Your task to perform on an android device: open sync settings in chrome Image 0: 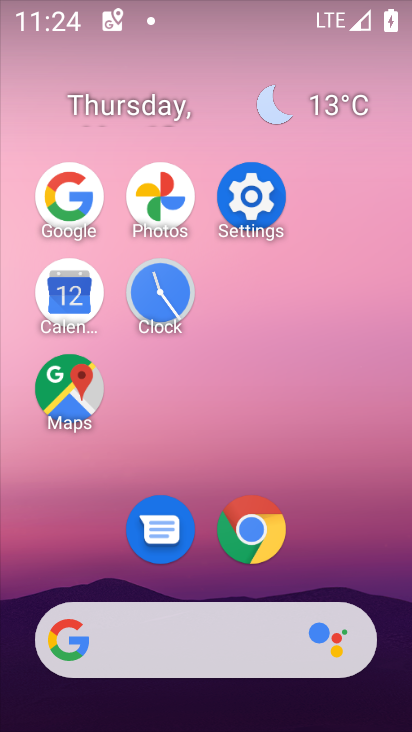
Step 0: click (240, 540)
Your task to perform on an android device: open sync settings in chrome Image 1: 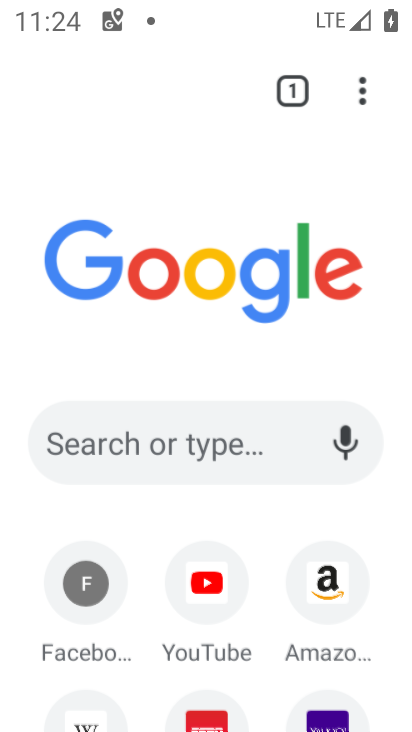
Step 1: click (369, 91)
Your task to perform on an android device: open sync settings in chrome Image 2: 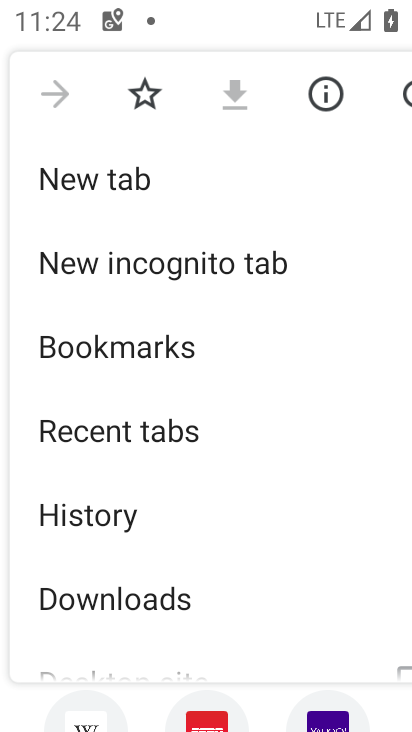
Step 2: drag from (234, 589) to (292, 159)
Your task to perform on an android device: open sync settings in chrome Image 3: 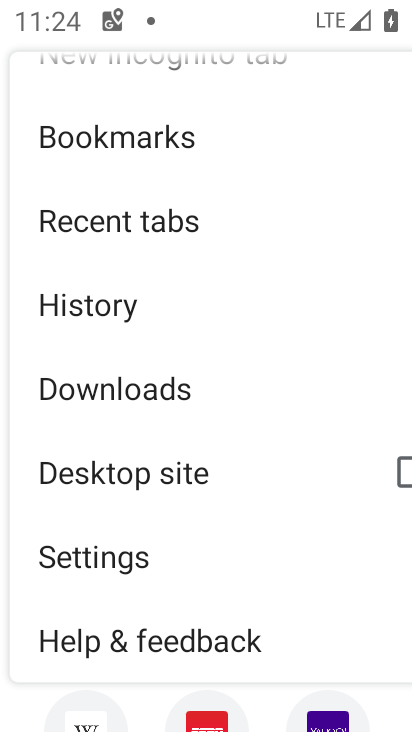
Step 3: click (210, 543)
Your task to perform on an android device: open sync settings in chrome Image 4: 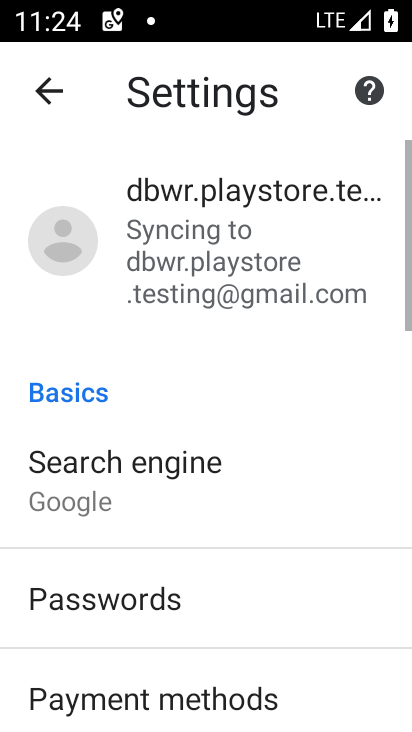
Step 4: drag from (210, 543) to (206, 151)
Your task to perform on an android device: open sync settings in chrome Image 5: 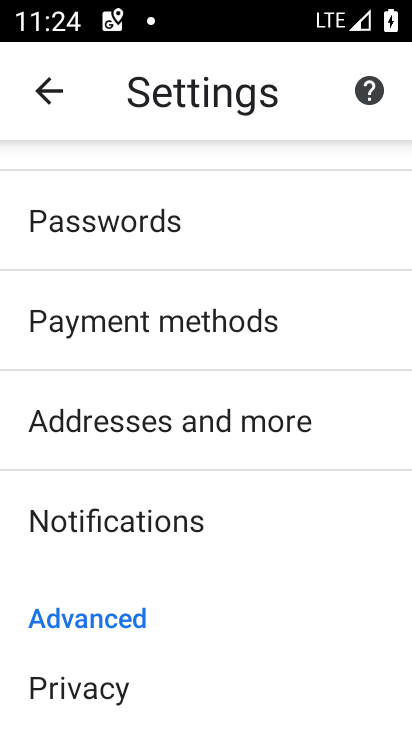
Step 5: drag from (208, 597) to (255, 220)
Your task to perform on an android device: open sync settings in chrome Image 6: 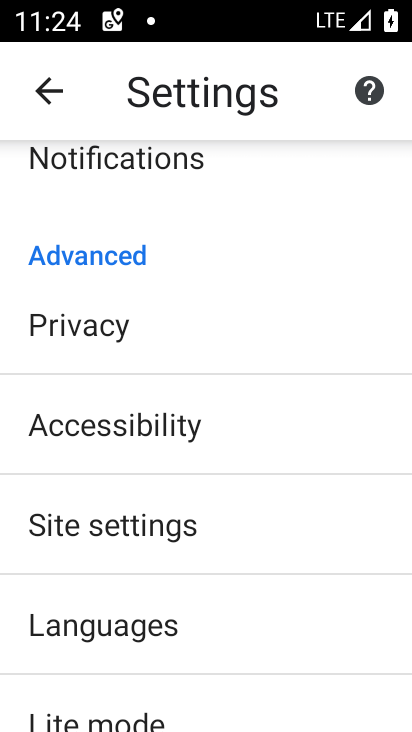
Step 6: click (226, 541)
Your task to perform on an android device: open sync settings in chrome Image 7: 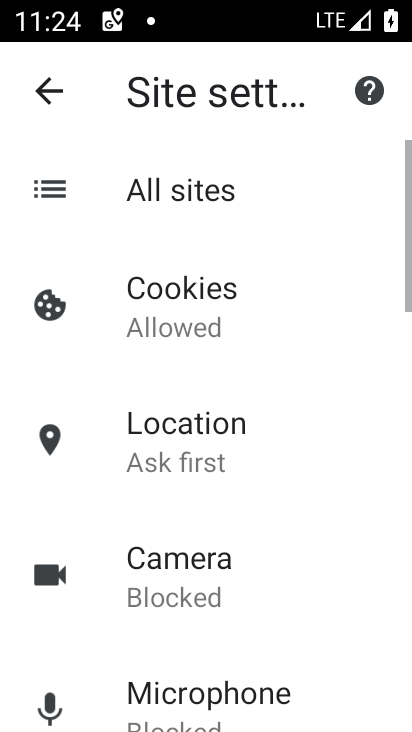
Step 7: drag from (226, 541) to (289, 139)
Your task to perform on an android device: open sync settings in chrome Image 8: 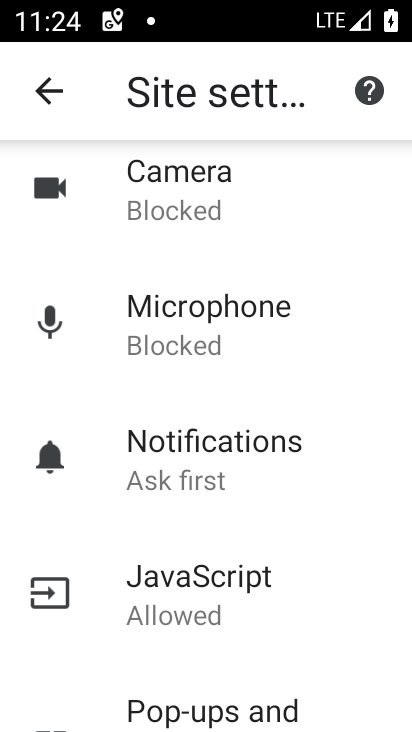
Step 8: drag from (254, 596) to (263, 237)
Your task to perform on an android device: open sync settings in chrome Image 9: 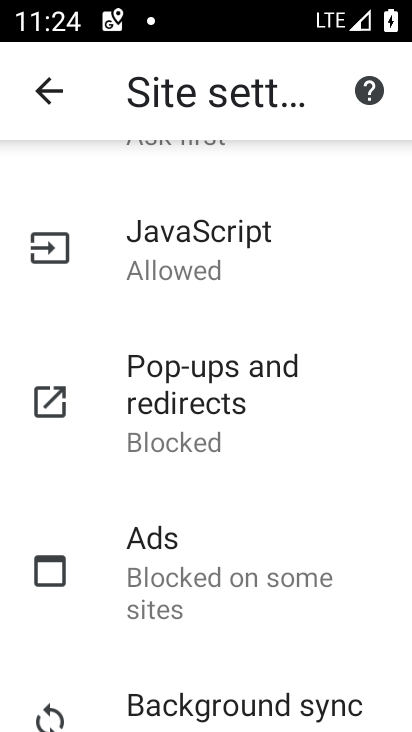
Step 9: drag from (230, 615) to (234, 252)
Your task to perform on an android device: open sync settings in chrome Image 10: 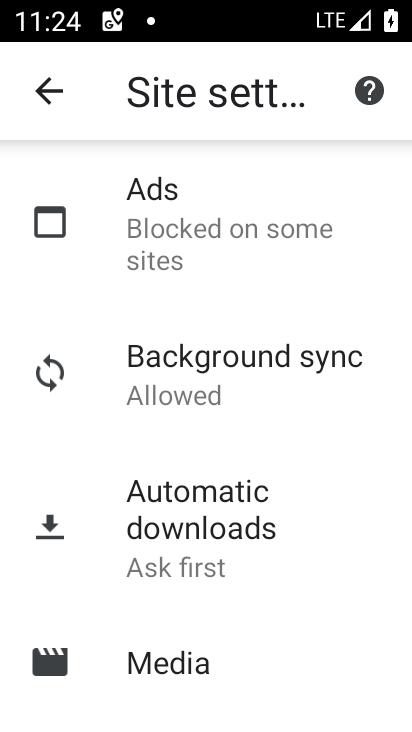
Step 10: click (264, 377)
Your task to perform on an android device: open sync settings in chrome Image 11: 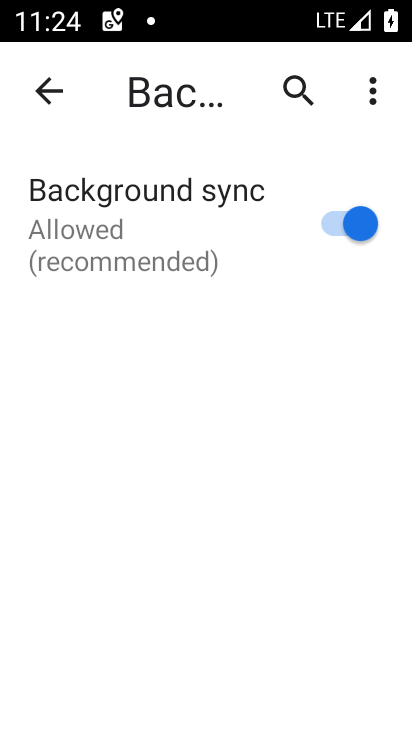
Step 11: task complete